Your task to perform on an android device: choose inbox layout in the gmail app Image 0: 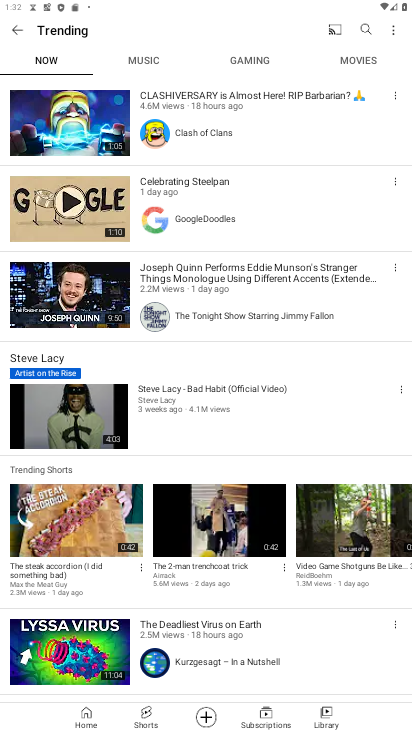
Step 0: press home button
Your task to perform on an android device: choose inbox layout in the gmail app Image 1: 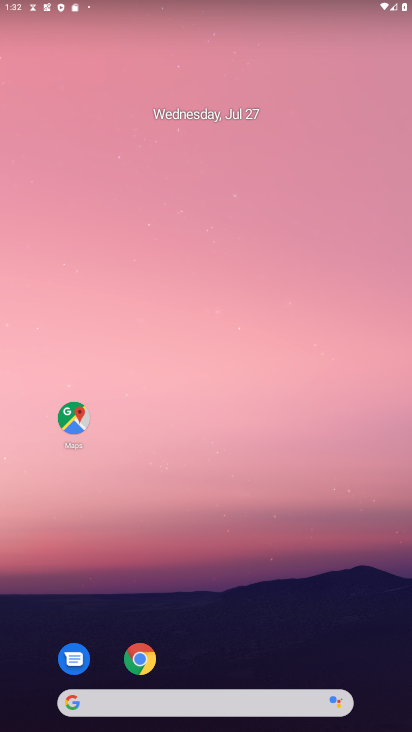
Step 1: drag from (210, 660) to (231, 22)
Your task to perform on an android device: choose inbox layout in the gmail app Image 2: 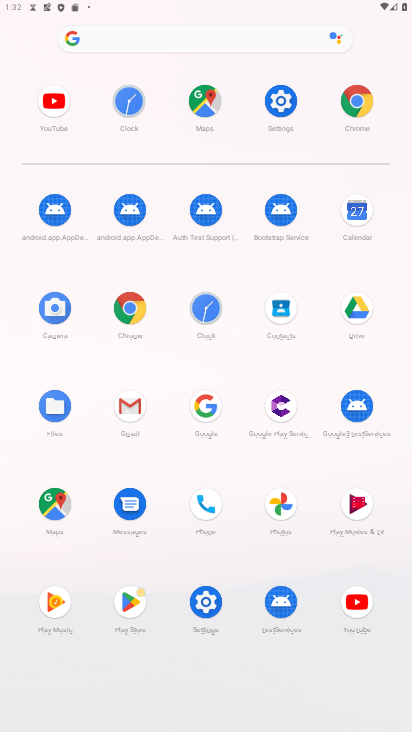
Step 2: click (127, 400)
Your task to perform on an android device: choose inbox layout in the gmail app Image 3: 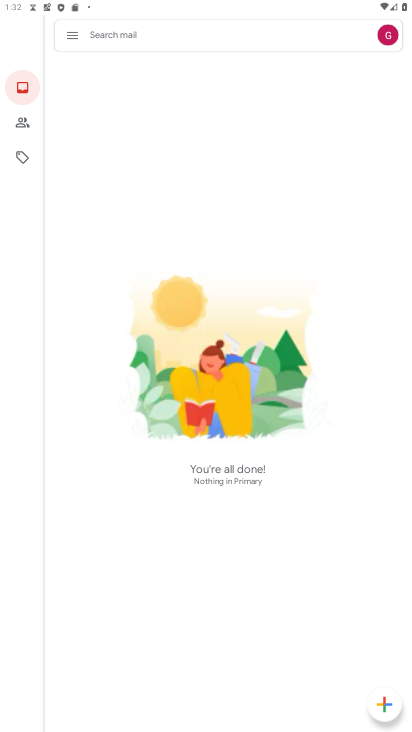
Step 3: click (73, 35)
Your task to perform on an android device: choose inbox layout in the gmail app Image 4: 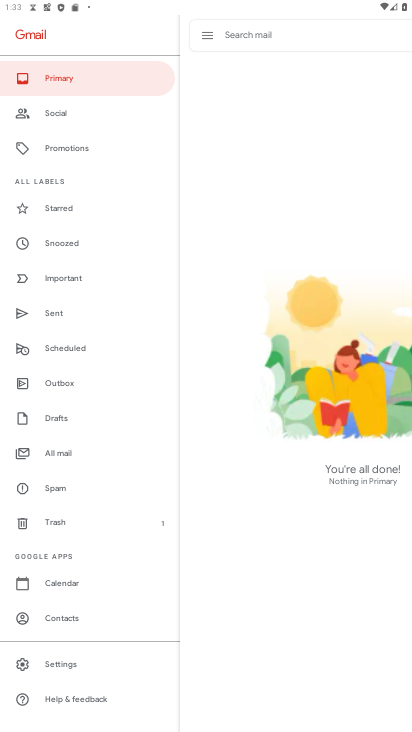
Step 4: click (81, 658)
Your task to perform on an android device: choose inbox layout in the gmail app Image 5: 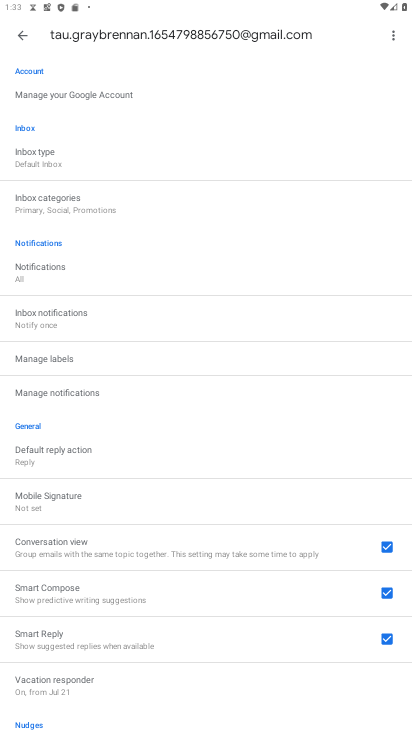
Step 5: click (67, 152)
Your task to perform on an android device: choose inbox layout in the gmail app Image 6: 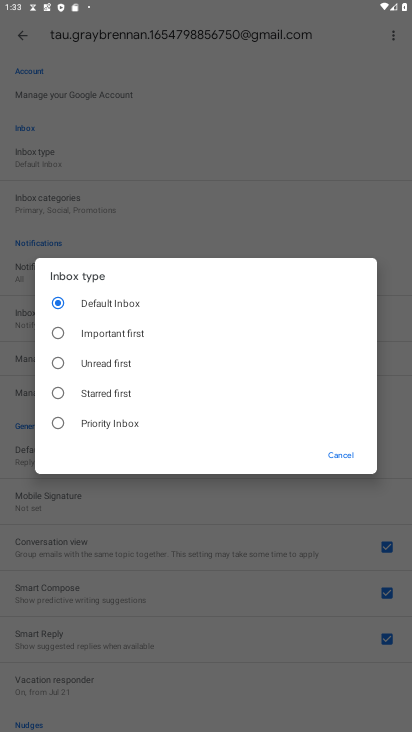
Step 6: click (48, 421)
Your task to perform on an android device: choose inbox layout in the gmail app Image 7: 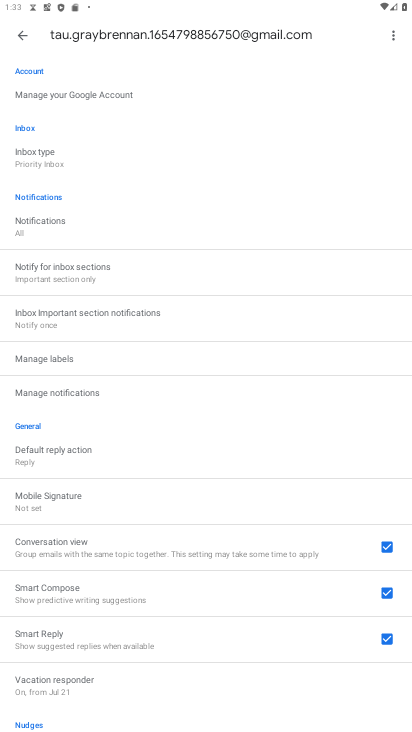
Step 7: task complete